Your task to perform on an android device: Open the Play Movies app and select the watchlist tab. Image 0: 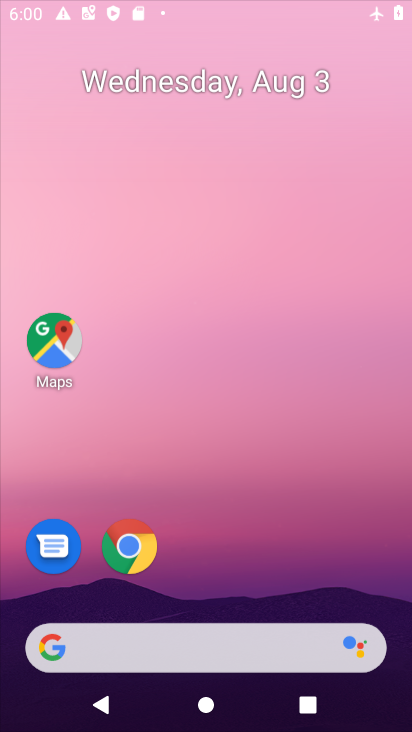
Step 0: press home button
Your task to perform on an android device: Open the Play Movies app and select the watchlist tab. Image 1: 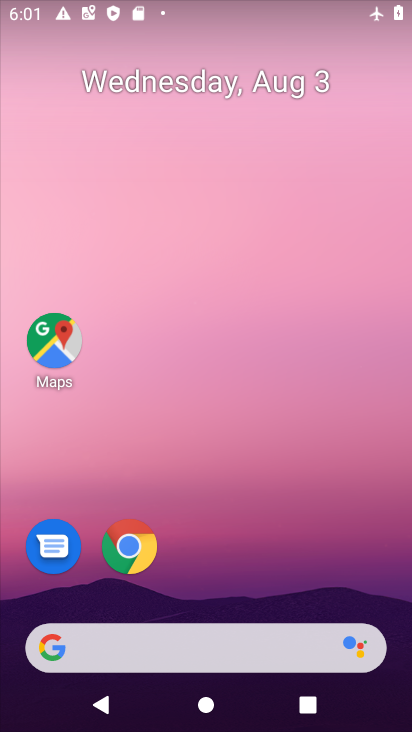
Step 1: drag from (270, 616) to (284, 143)
Your task to perform on an android device: Open the Play Movies app and select the watchlist tab. Image 2: 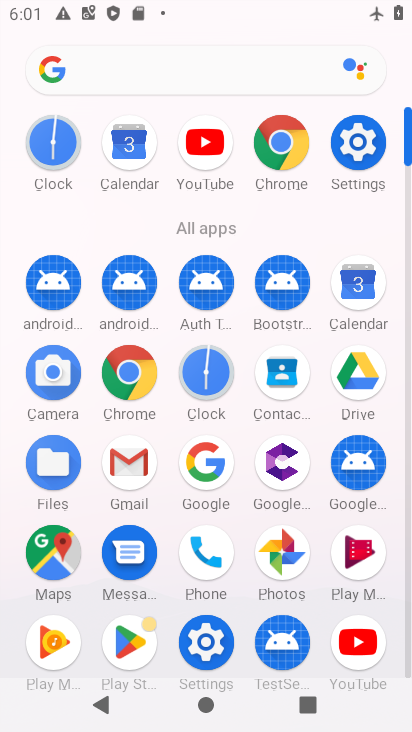
Step 2: drag from (248, 606) to (351, 631)
Your task to perform on an android device: Open the Play Movies app and select the watchlist tab. Image 3: 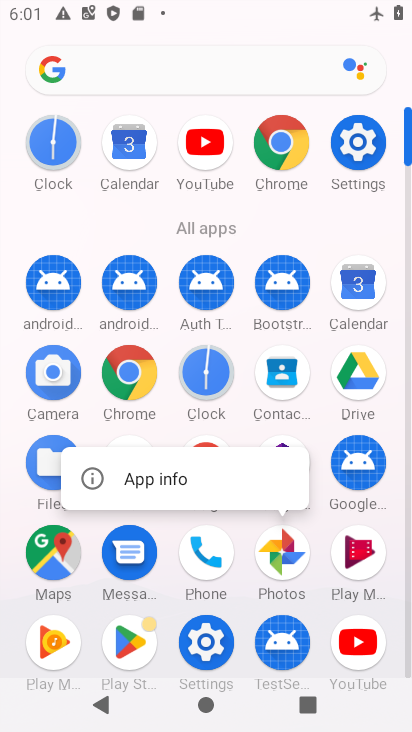
Step 3: click (367, 556)
Your task to perform on an android device: Open the Play Movies app and select the watchlist tab. Image 4: 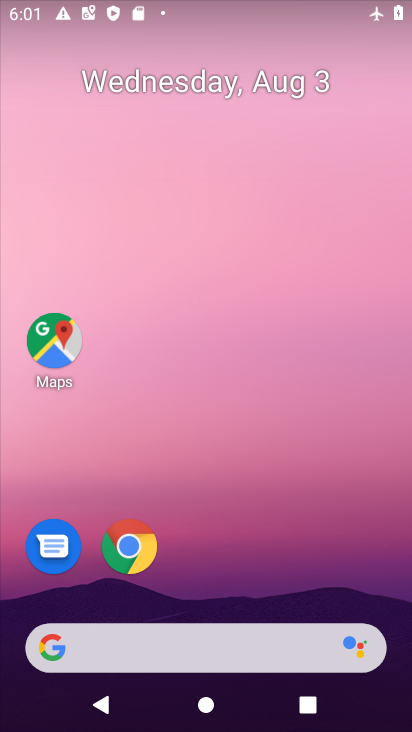
Step 4: drag from (318, 600) to (293, 80)
Your task to perform on an android device: Open the Play Movies app and select the watchlist tab. Image 5: 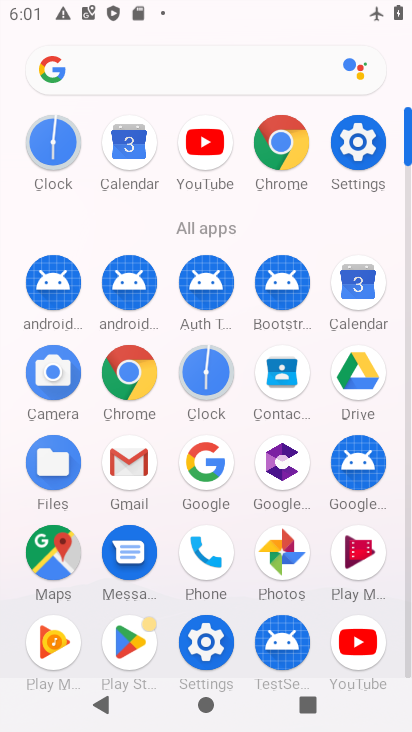
Step 5: click (345, 559)
Your task to perform on an android device: Open the Play Movies app and select the watchlist tab. Image 6: 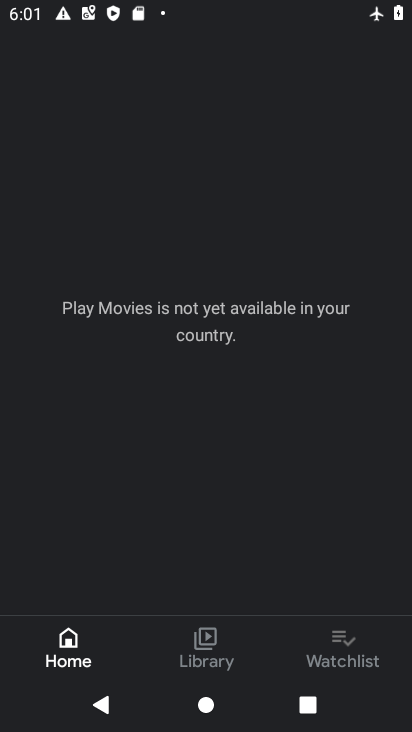
Step 6: click (340, 640)
Your task to perform on an android device: Open the Play Movies app and select the watchlist tab. Image 7: 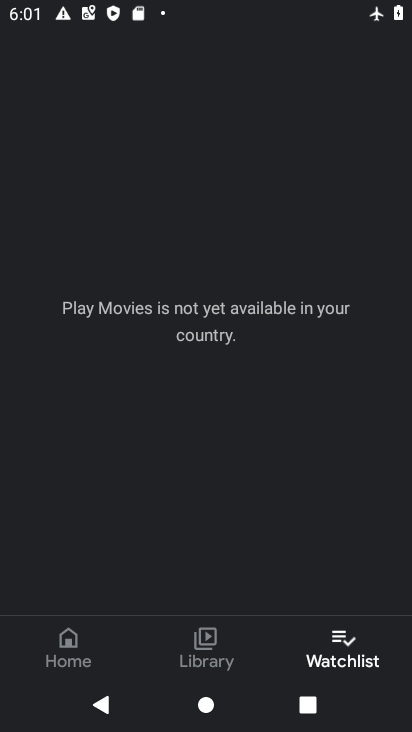
Step 7: press home button
Your task to perform on an android device: Open the Play Movies app and select the watchlist tab. Image 8: 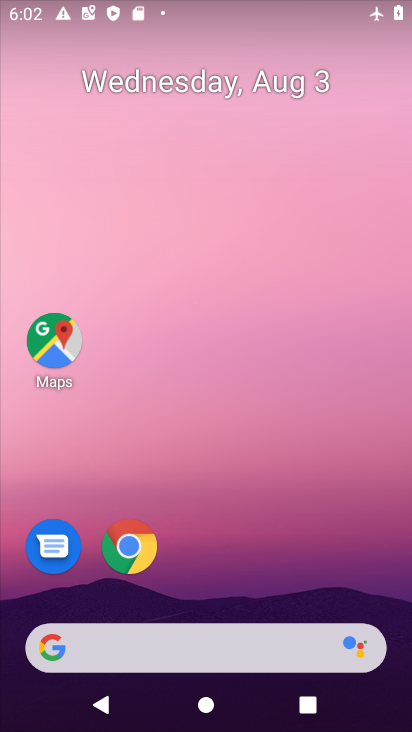
Step 8: press home button
Your task to perform on an android device: Open the Play Movies app and select the watchlist tab. Image 9: 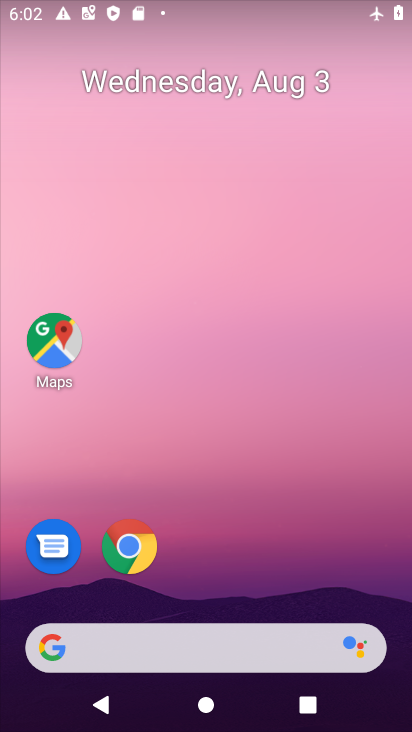
Step 9: drag from (234, 592) to (329, 0)
Your task to perform on an android device: Open the Play Movies app and select the watchlist tab. Image 10: 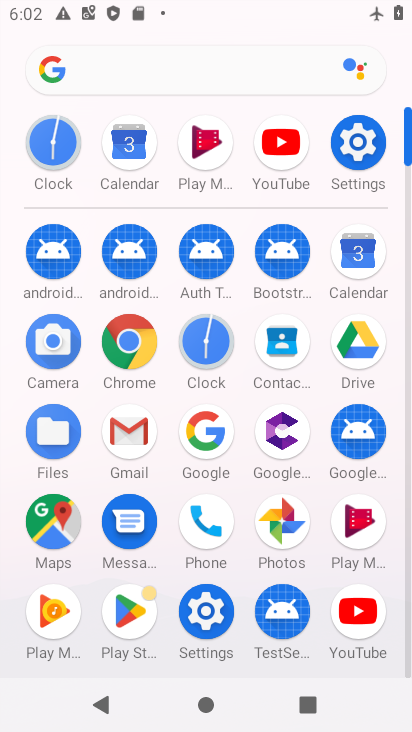
Step 10: click (364, 527)
Your task to perform on an android device: Open the Play Movies app and select the watchlist tab. Image 11: 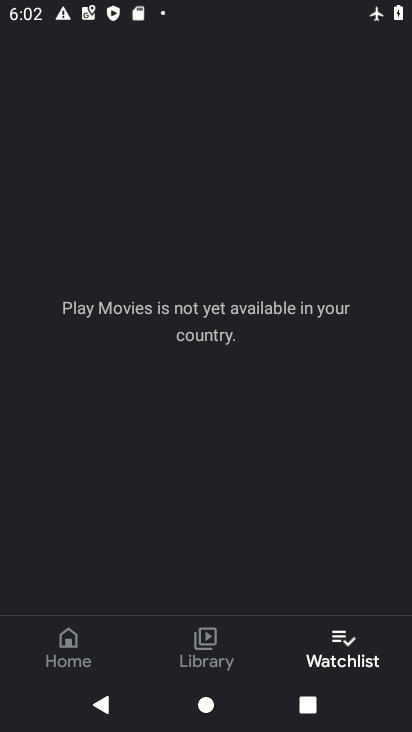
Step 11: click (333, 637)
Your task to perform on an android device: Open the Play Movies app and select the watchlist tab. Image 12: 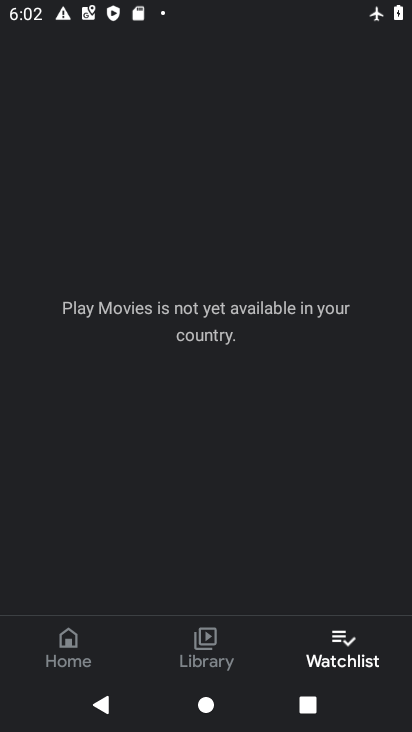
Step 12: task complete